Your task to perform on an android device: Open location settings Image 0: 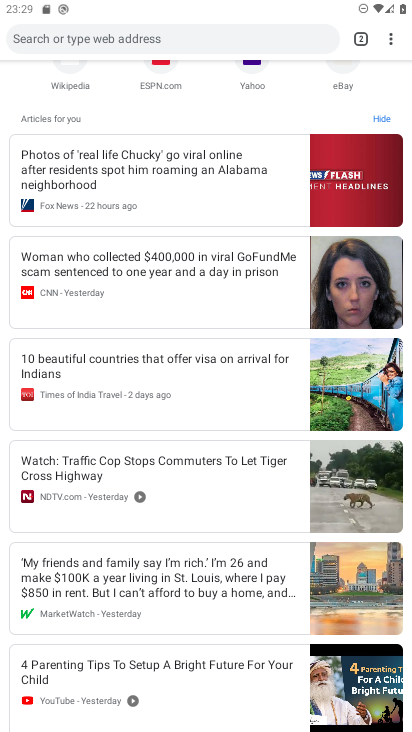
Step 0: press home button
Your task to perform on an android device: Open location settings Image 1: 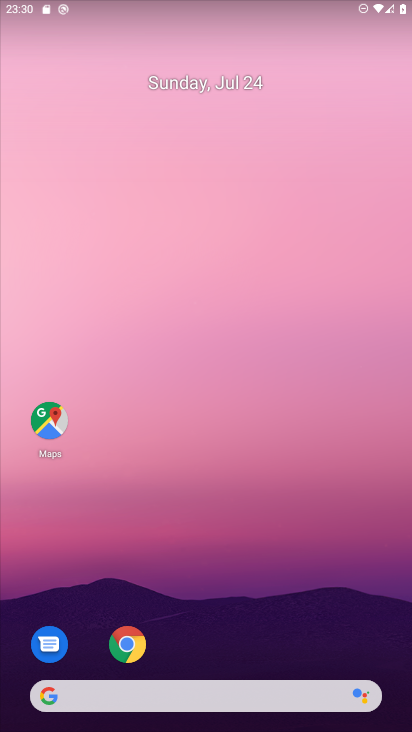
Step 1: drag from (373, 631) to (355, 76)
Your task to perform on an android device: Open location settings Image 2: 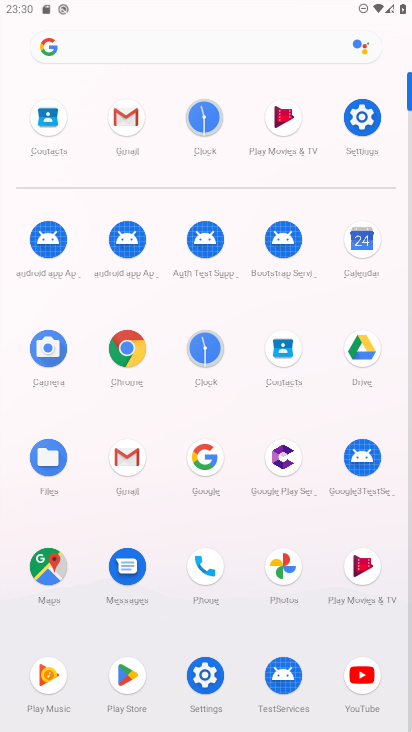
Step 2: click (207, 677)
Your task to perform on an android device: Open location settings Image 3: 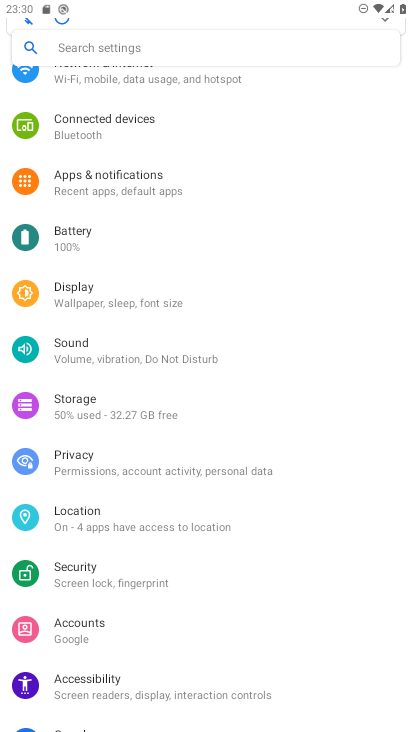
Step 3: click (85, 518)
Your task to perform on an android device: Open location settings Image 4: 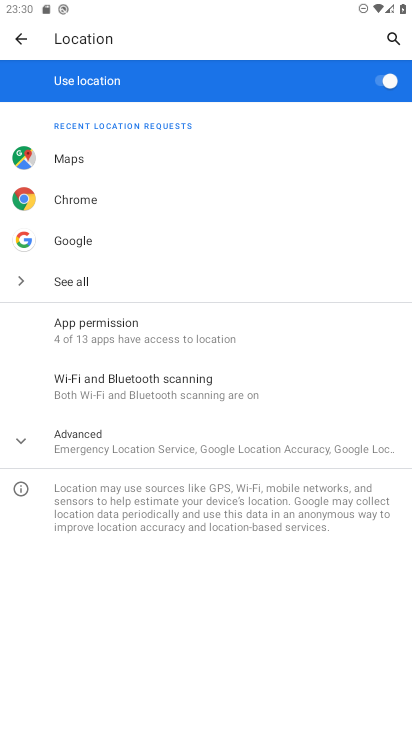
Step 4: task complete